Your task to perform on an android device: allow cookies in the chrome app Image 0: 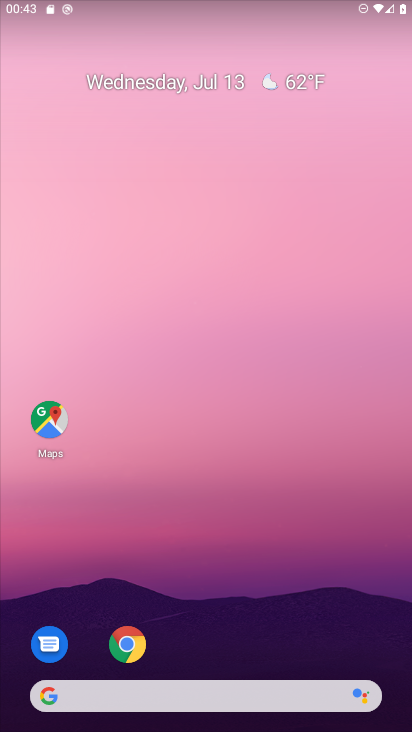
Step 0: click (138, 638)
Your task to perform on an android device: allow cookies in the chrome app Image 1: 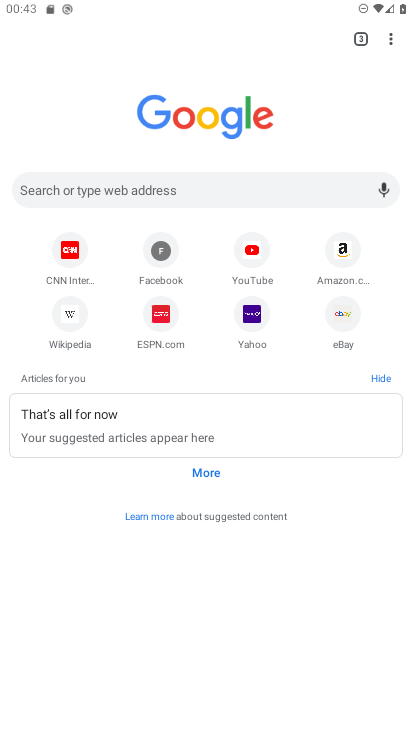
Step 1: click (388, 34)
Your task to perform on an android device: allow cookies in the chrome app Image 2: 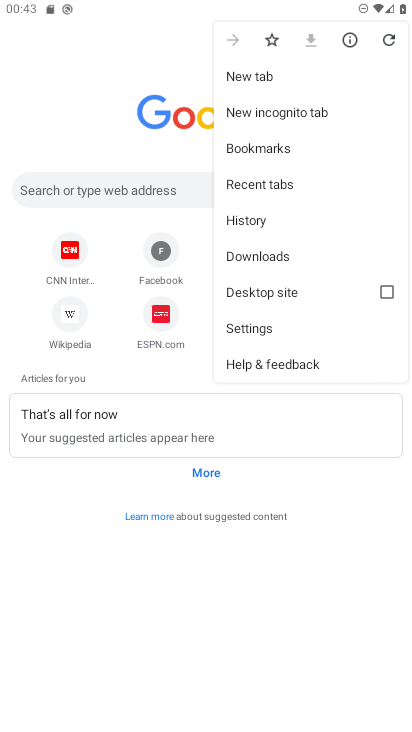
Step 2: click (259, 330)
Your task to perform on an android device: allow cookies in the chrome app Image 3: 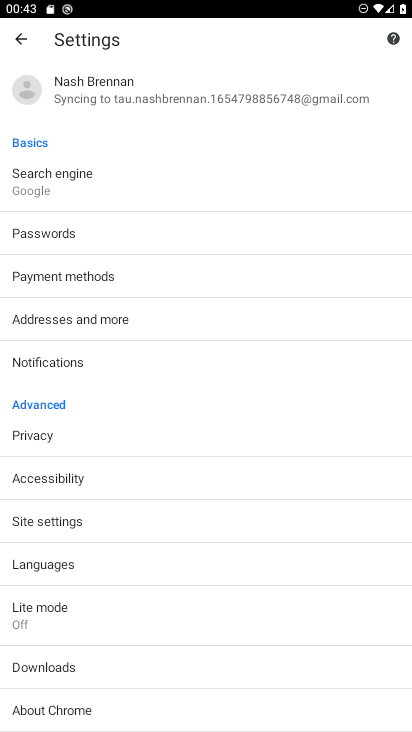
Step 3: click (60, 532)
Your task to perform on an android device: allow cookies in the chrome app Image 4: 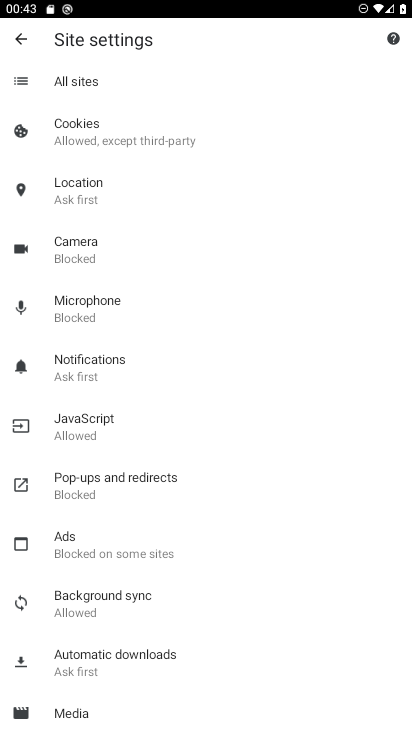
Step 4: click (81, 114)
Your task to perform on an android device: allow cookies in the chrome app Image 5: 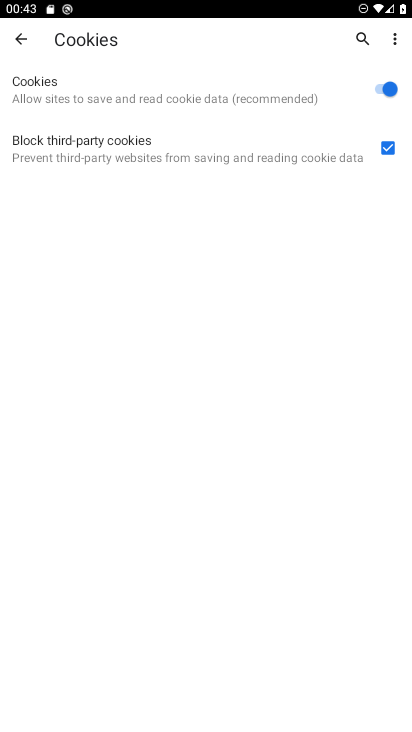
Step 5: task complete